Your task to perform on an android device: Open sound settings Image 0: 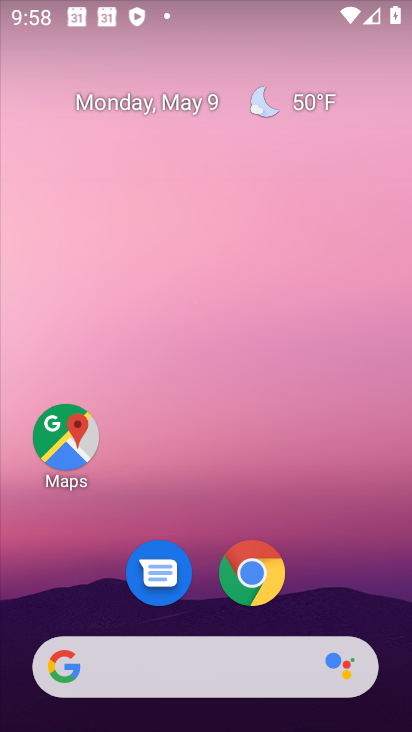
Step 0: drag from (336, 556) to (335, 87)
Your task to perform on an android device: Open sound settings Image 1: 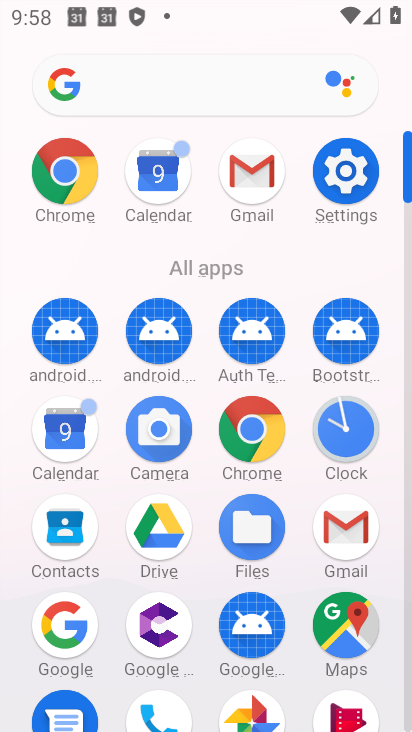
Step 1: click (348, 193)
Your task to perform on an android device: Open sound settings Image 2: 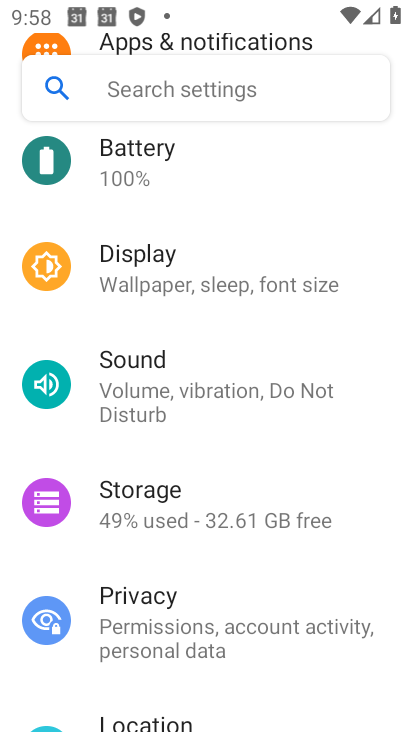
Step 2: click (161, 373)
Your task to perform on an android device: Open sound settings Image 3: 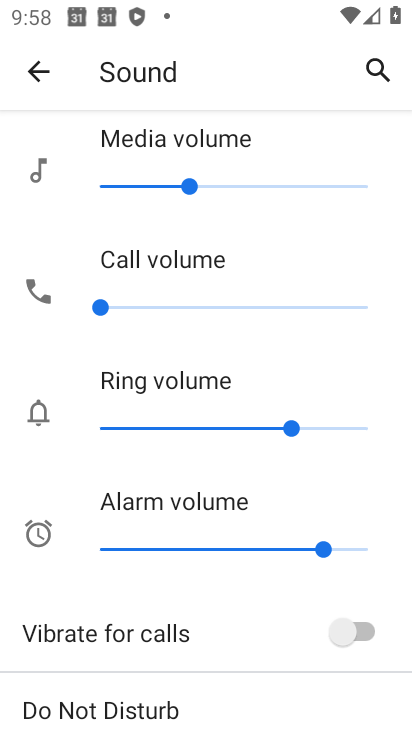
Step 3: task complete